Your task to perform on an android device: find which apps use the phone's location Image 0: 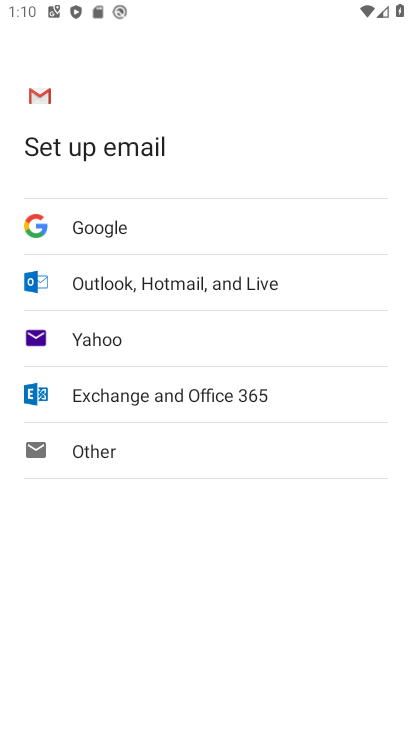
Step 0: task complete